Your task to perform on an android device: What is the speed of a plane? Image 0: 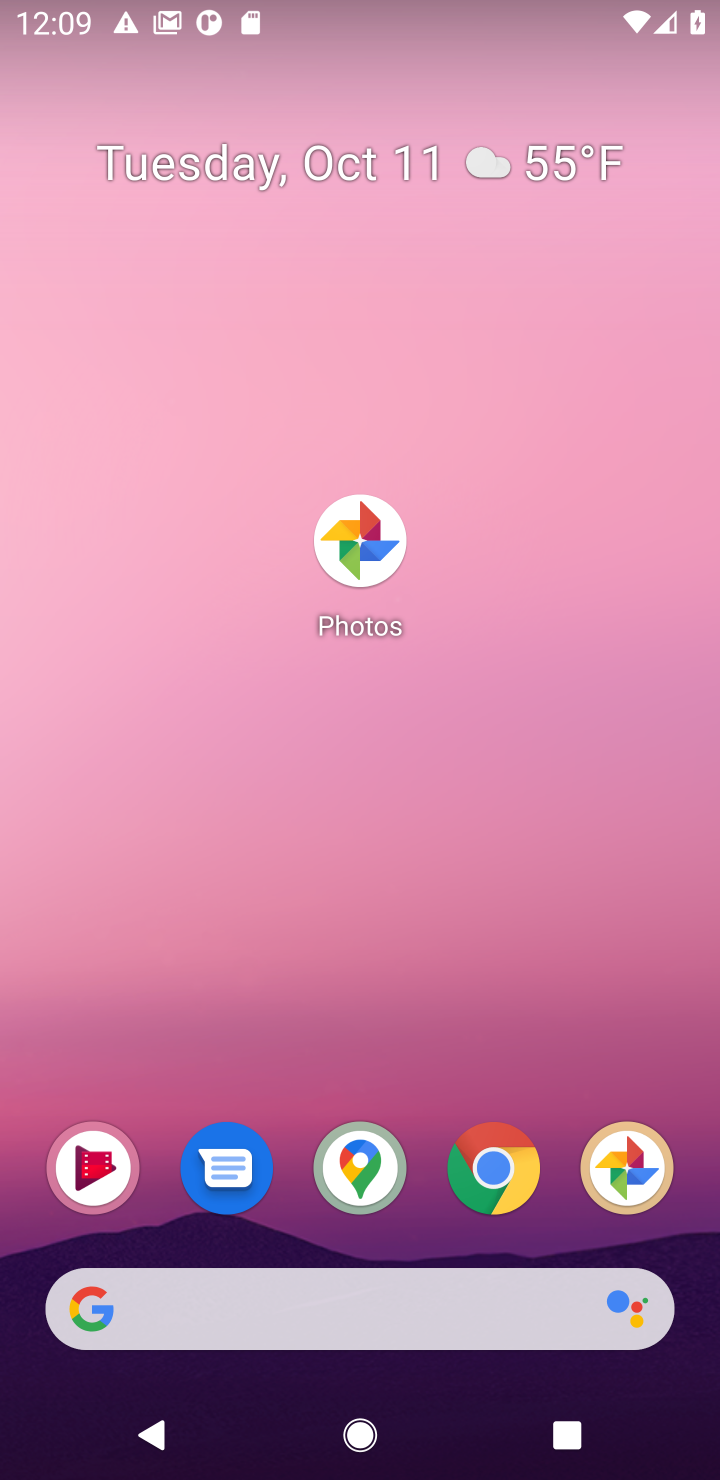
Step 0: drag from (443, 1064) to (479, 354)
Your task to perform on an android device: What is the speed of a plane? Image 1: 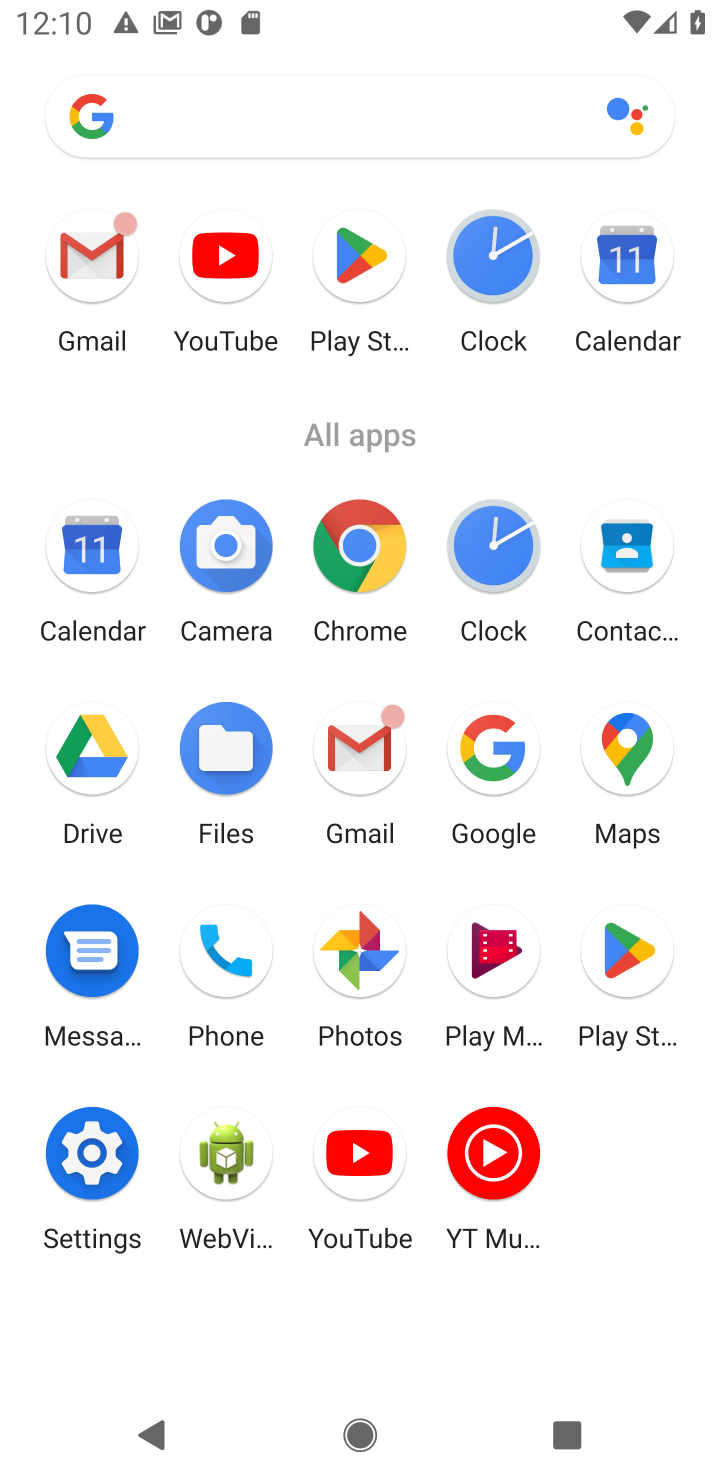
Step 1: click (497, 774)
Your task to perform on an android device: What is the speed of a plane? Image 2: 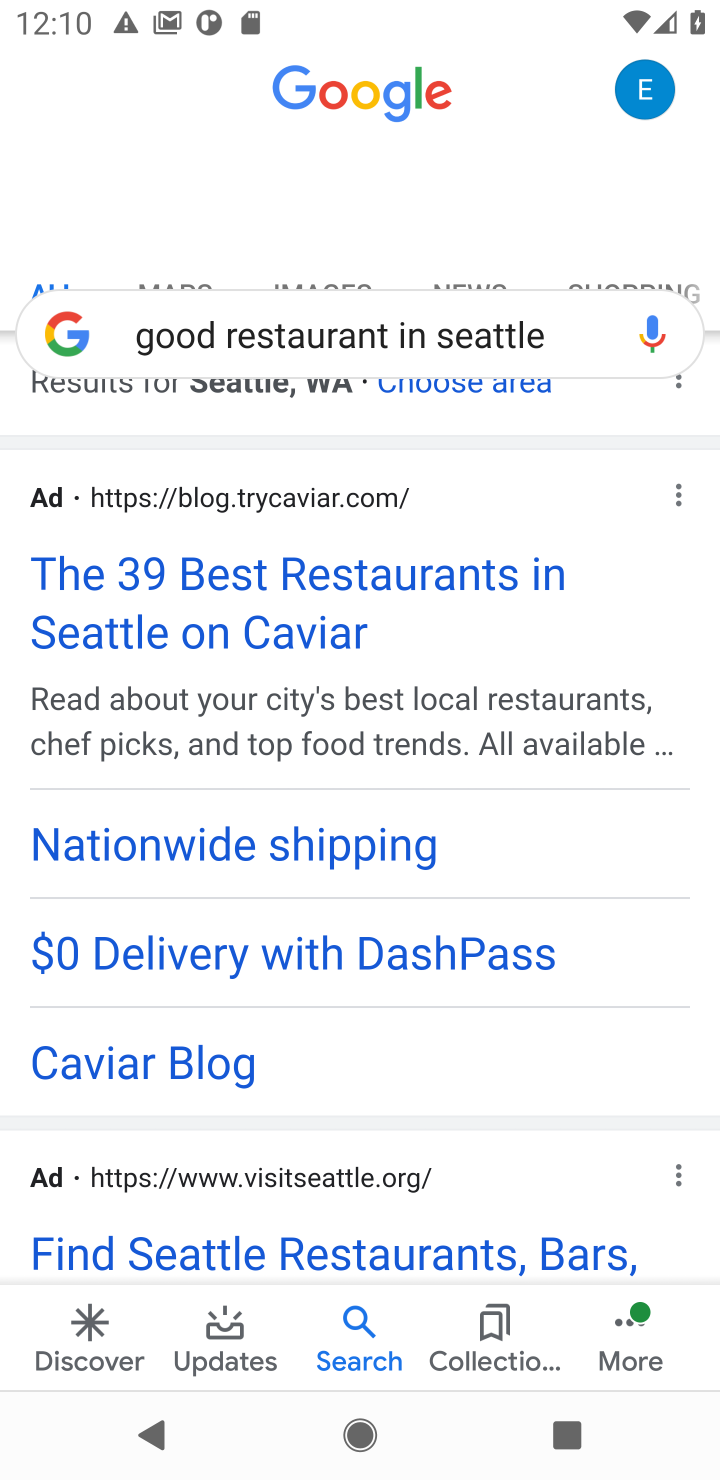
Step 2: click (474, 347)
Your task to perform on an android device: What is the speed of a plane? Image 3: 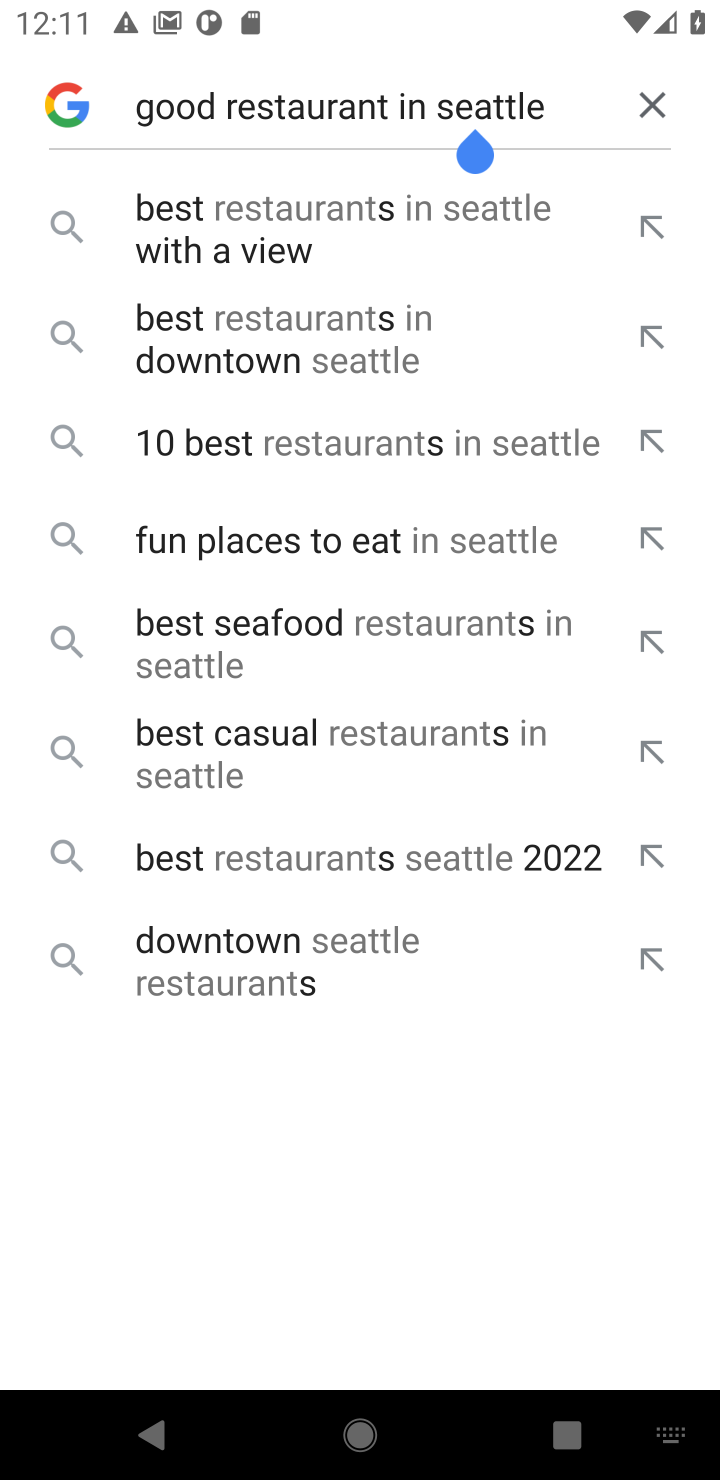
Step 3: click (650, 116)
Your task to perform on an android device: What is the speed of a plane? Image 4: 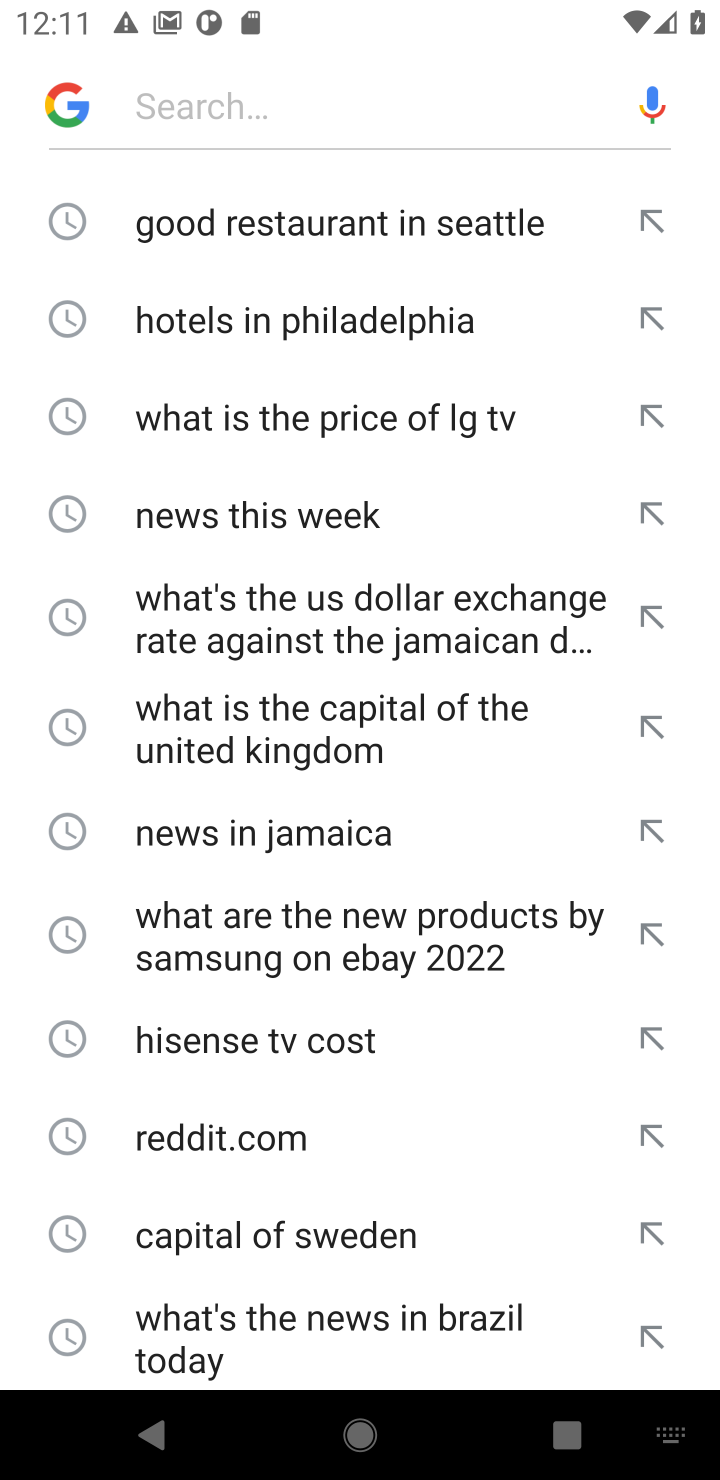
Step 4: type "What is the speed of a plane?"
Your task to perform on an android device: What is the speed of a plane? Image 5: 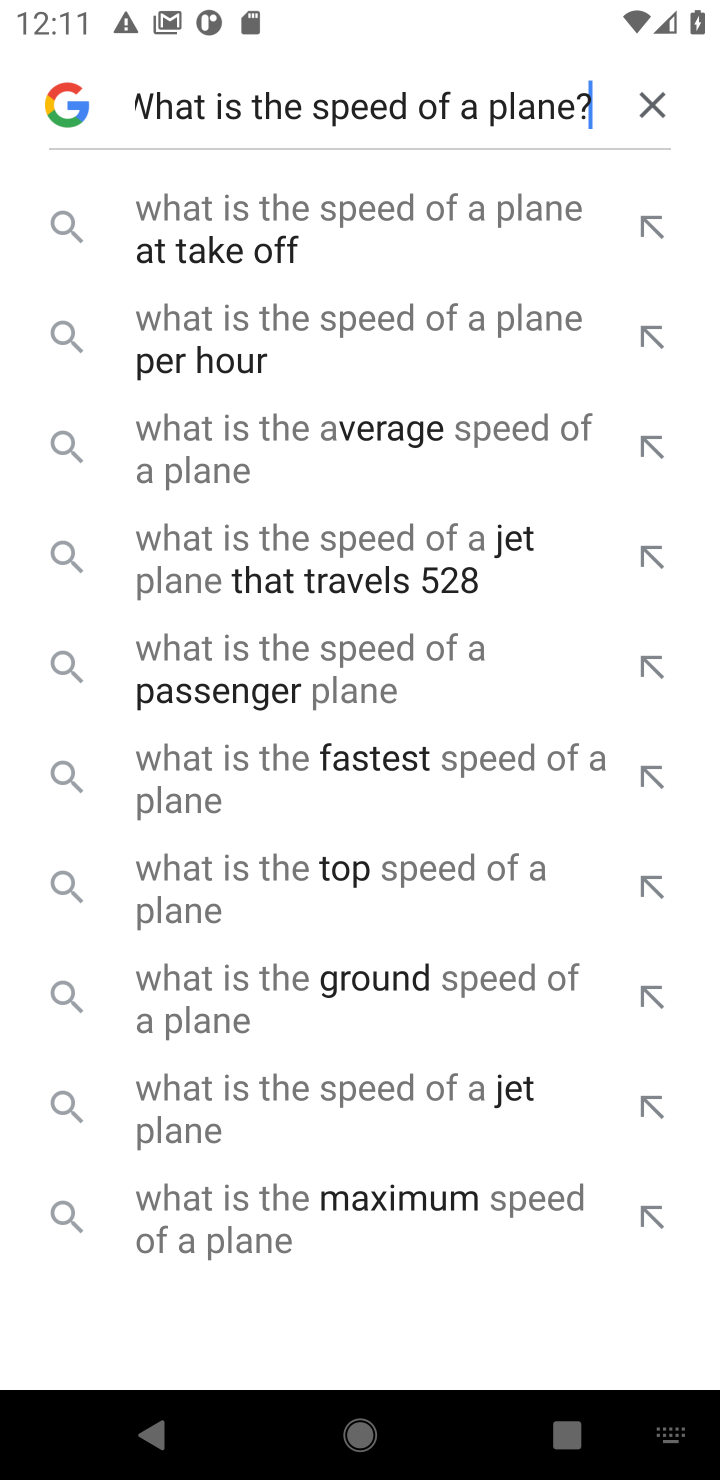
Step 5: click (444, 455)
Your task to perform on an android device: What is the speed of a plane? Image 6: 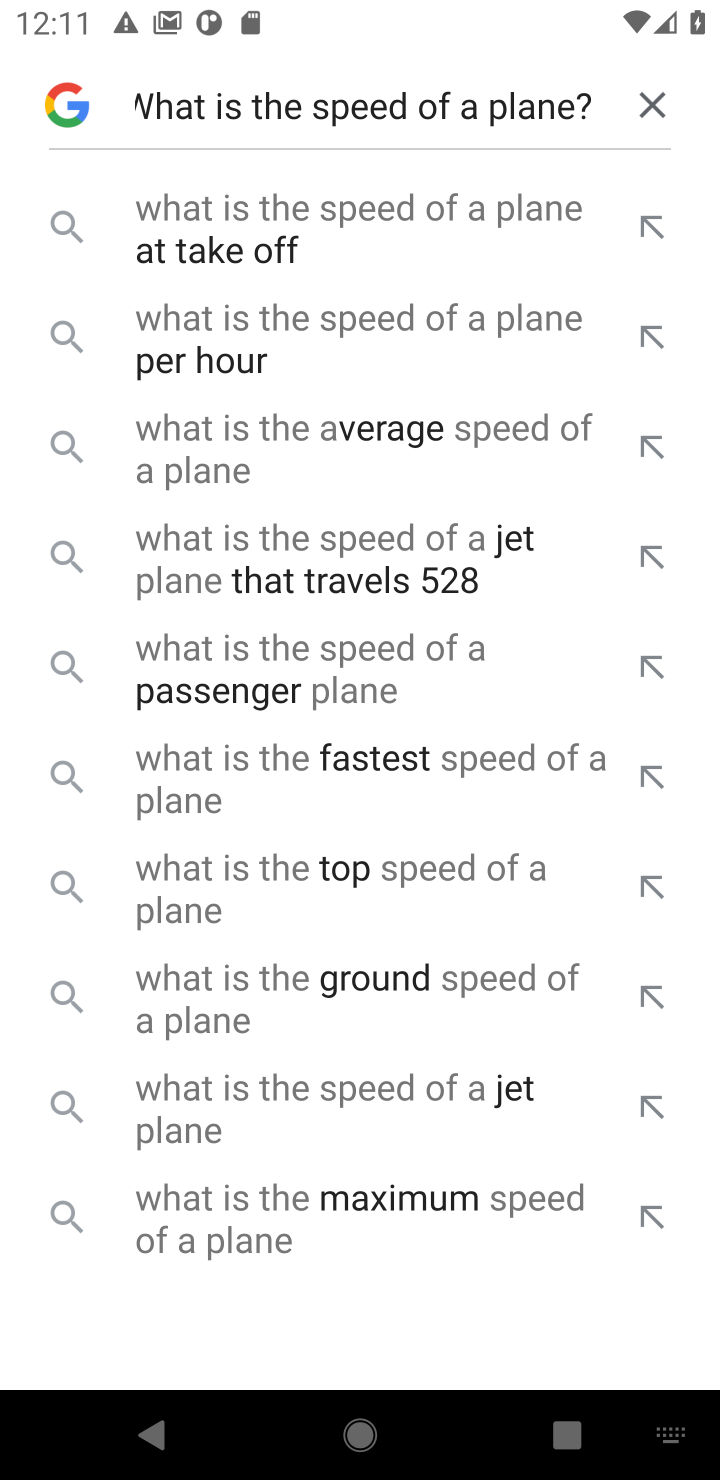
Step 6: click (444, 455)
Your task to perform on an android device: What is the speed of a plane? Image 7: 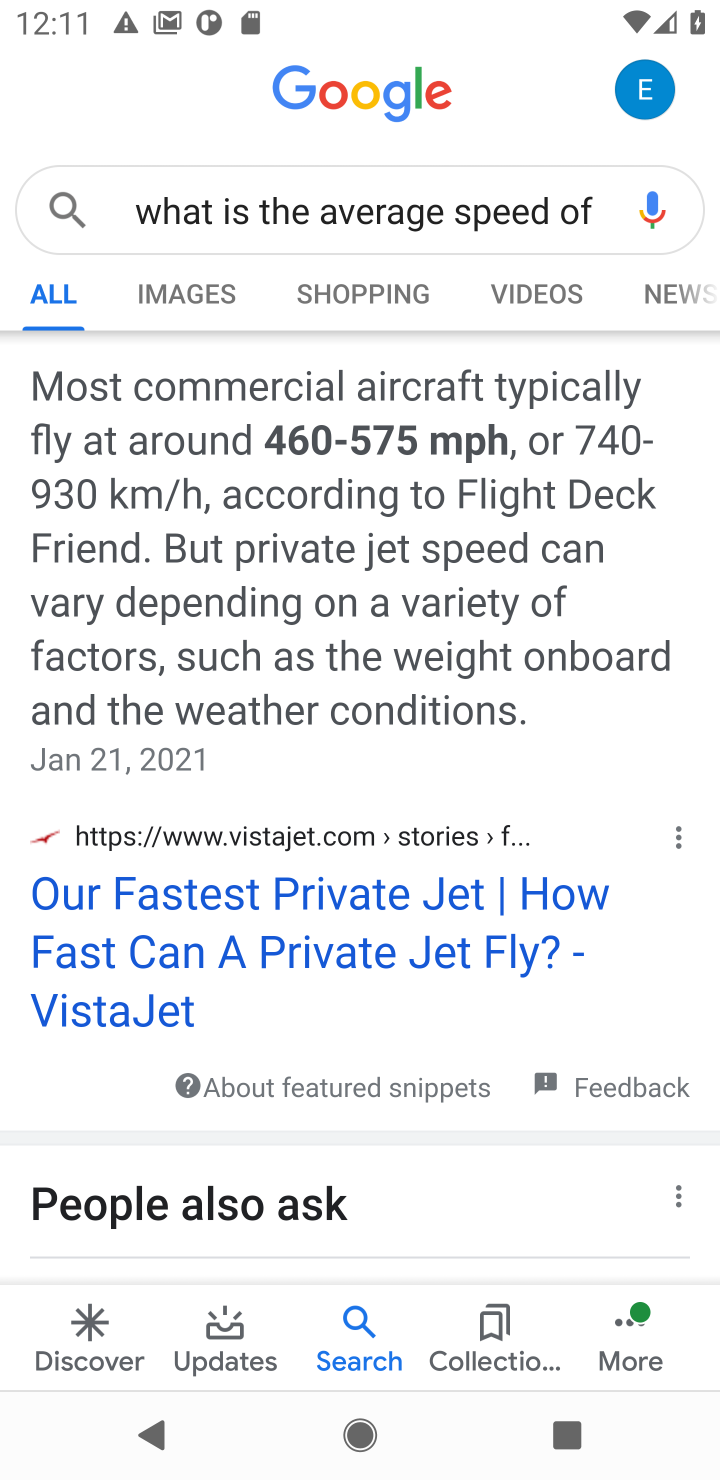
Step 7: task complete